Your task to perform on an android device: clear all cookies in the chrome app Image 0: 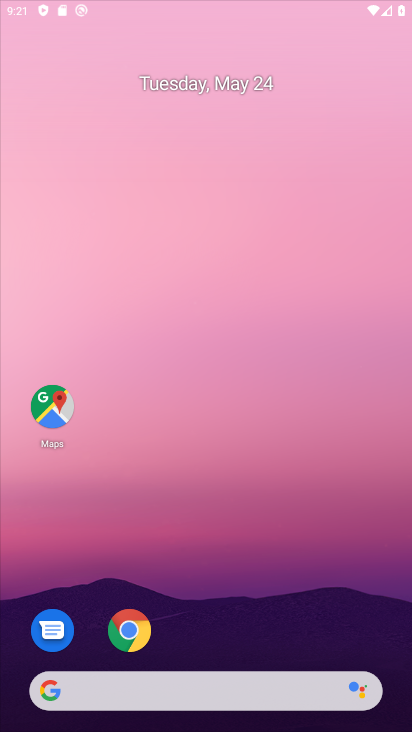
Step 0: press home button
Your task to perform on an android device: clear all cookies in the chrome app Image 1: 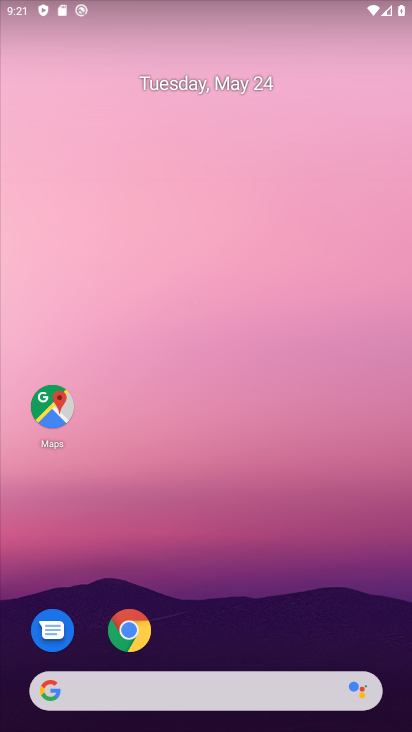
Step 1: click (128, 626)
Your task to perform on an android device: clear all cookies in the chrome app Image 2: 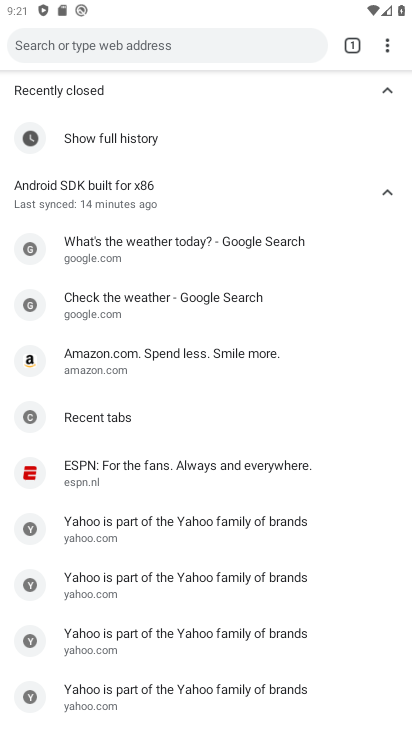
Step 2: click (389, 43)
Your task to perform on an android device: clear all cookies in the chrome app Image 3: 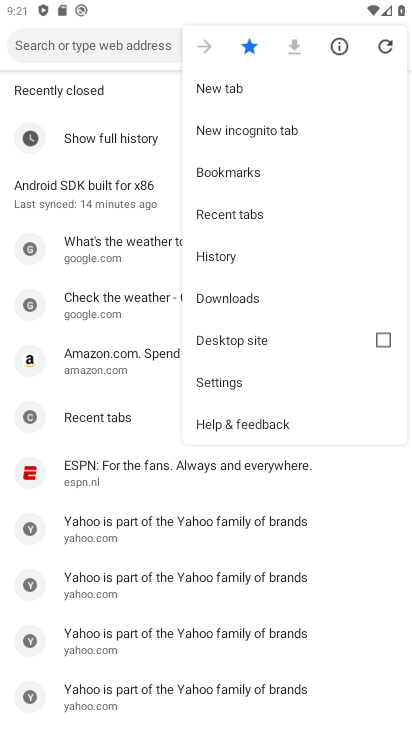
Step 3: click (249, 253)
Your task to perform on an android device: clear all cookies in the chrome app Image 4: 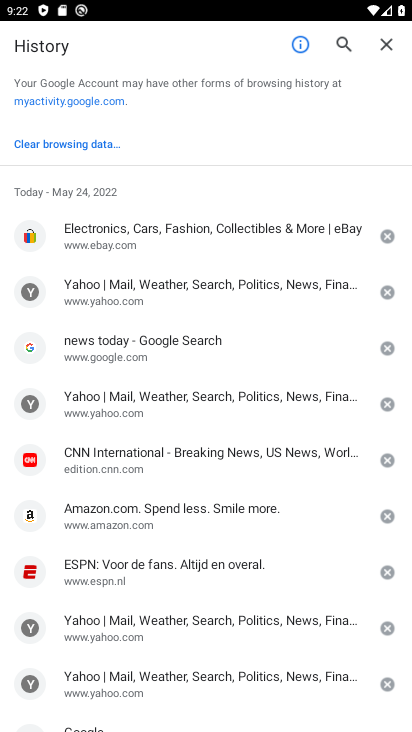
Step 4: click (49, 136)
Your task to perform on an android device: clear all cookies in the chrome app Image 5: 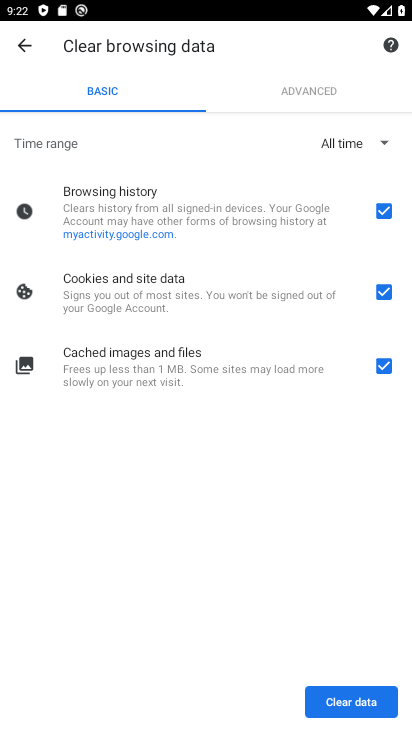
Step 5: click (345, 705)
Your task to perform on an android device: clear all cookies in the chrome app Image 6: 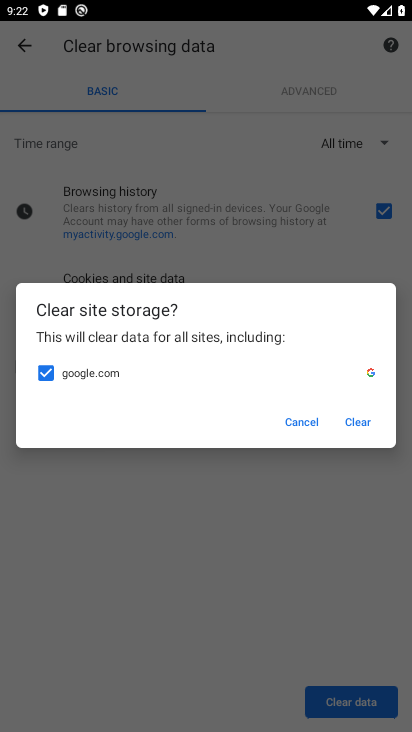
Step 6: click (351, 418)
Your task to perform on an android device: clear all cookies in the chrome app Image 7: 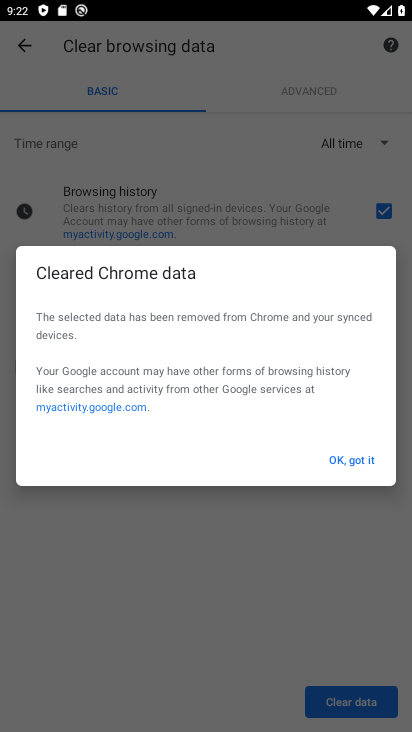
Step 7: click (355, 461)
Your task to perform on an android device: clear all cookies in the chrome app Image 8: 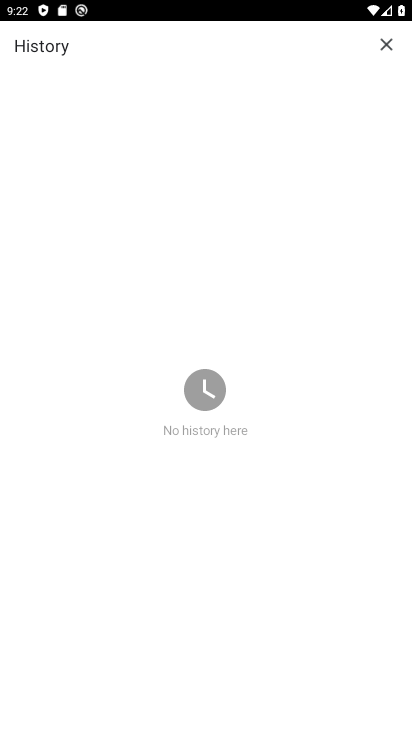
Step 8: task complete